Your task to perform on an android device: Add "macbook air" to the cart on bestbuy, then select checkout. Image 0: 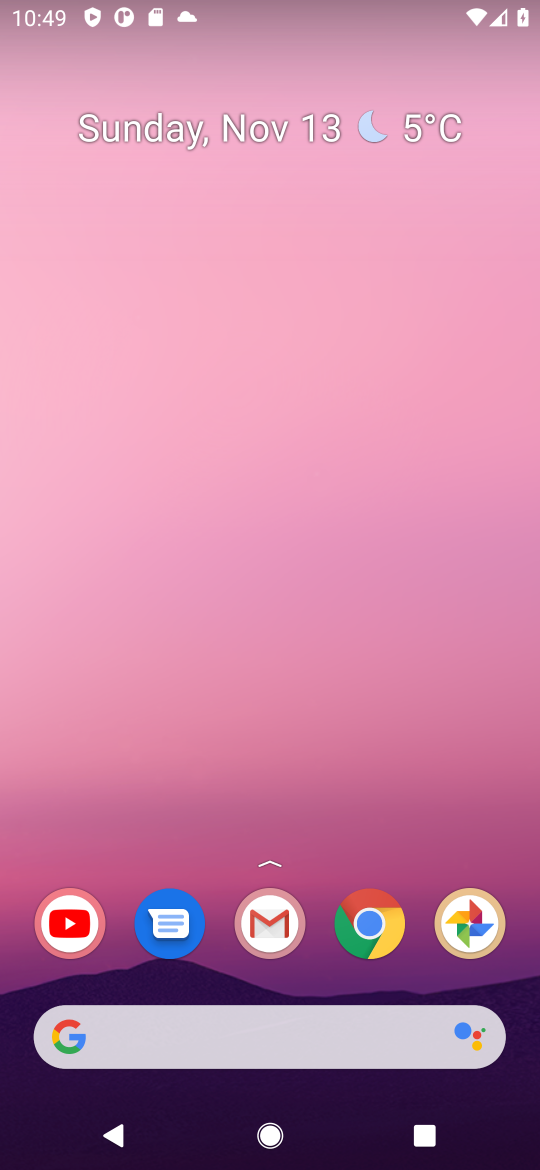
Step 0: click (377, 923)
Your task to perform on an android device: Add "macbook air" to the cart on bestbuy, then select checkout. Image 1: 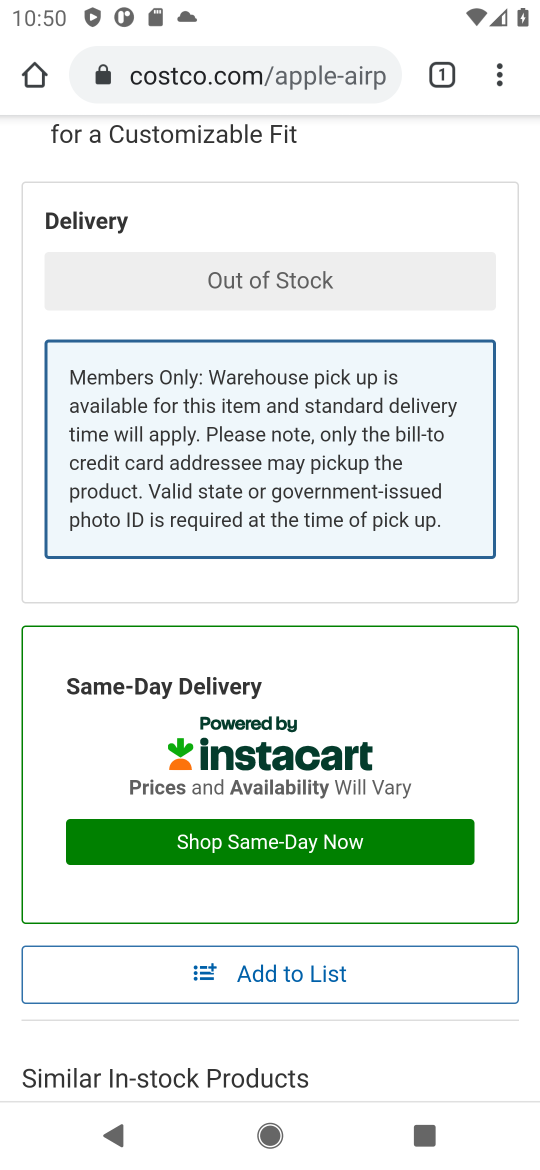
Step 1: click (255, 108)
Your task to perform on an android device: Add "macbook air" to the cart on bestbuy, then select checkout. Image 2: 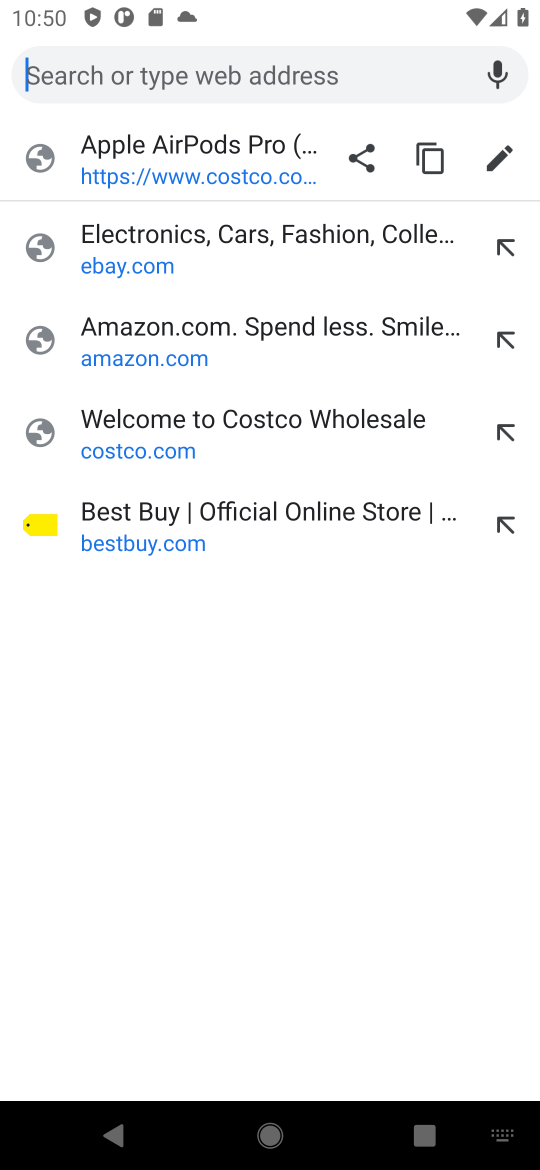
Step 2: type "bestbuy"
Your task to perform on an android device: Add "macbook air" to the cart on bestbuy, then select checkout. Image 3: 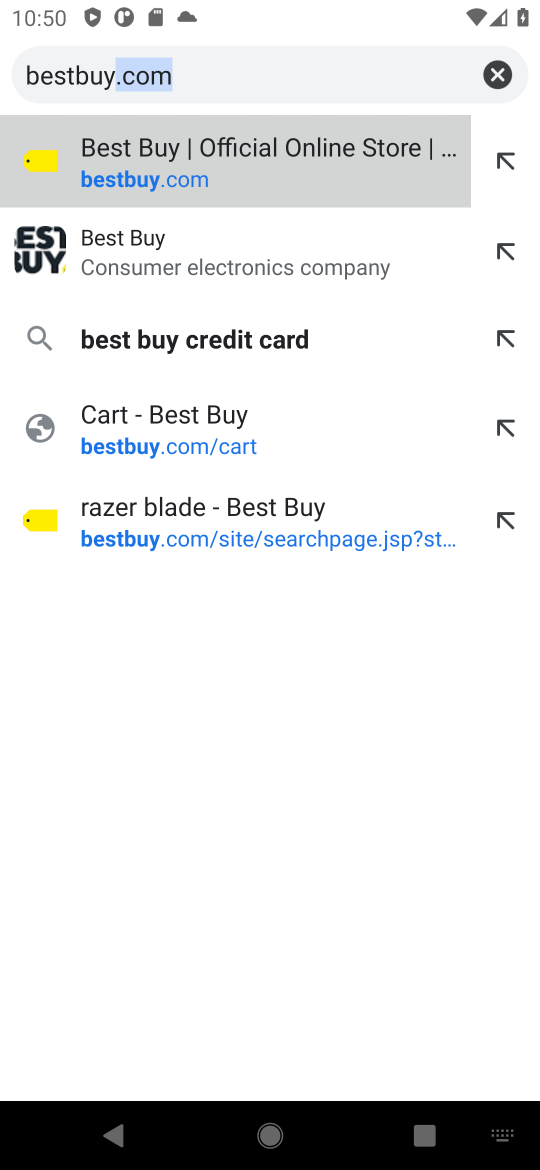
Step 3: click (234, 168)
Your task to perform on an android device: Add "macbook air" to the cart on bestbuy, then select checkout. Image 4: 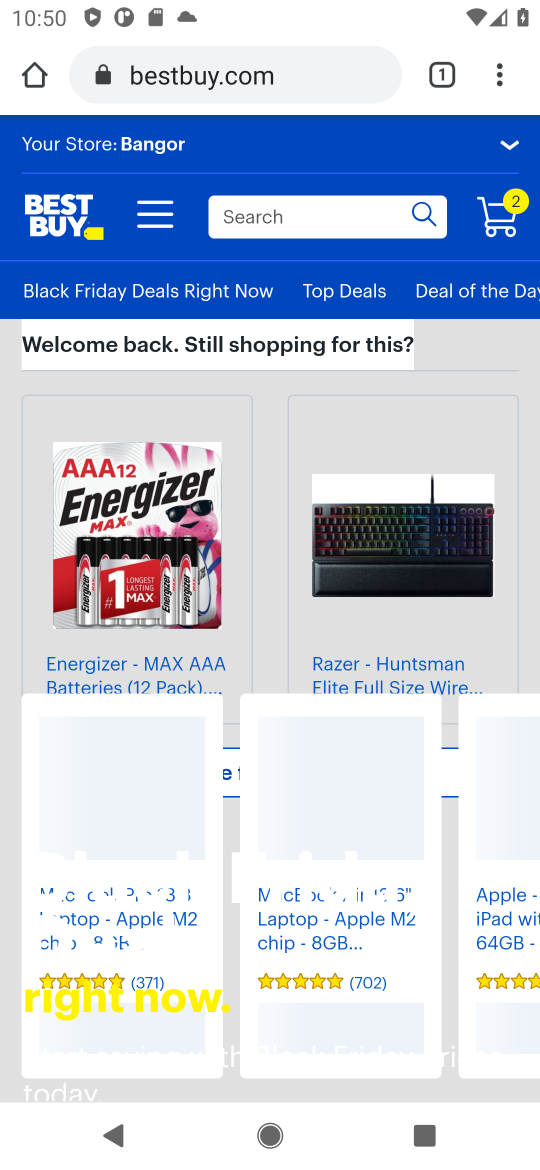
Step 4: click (283, 216)
Your task to perform on an android device: Add "macbook air" to the cart on bestbuy, then select checkout. Image 5: 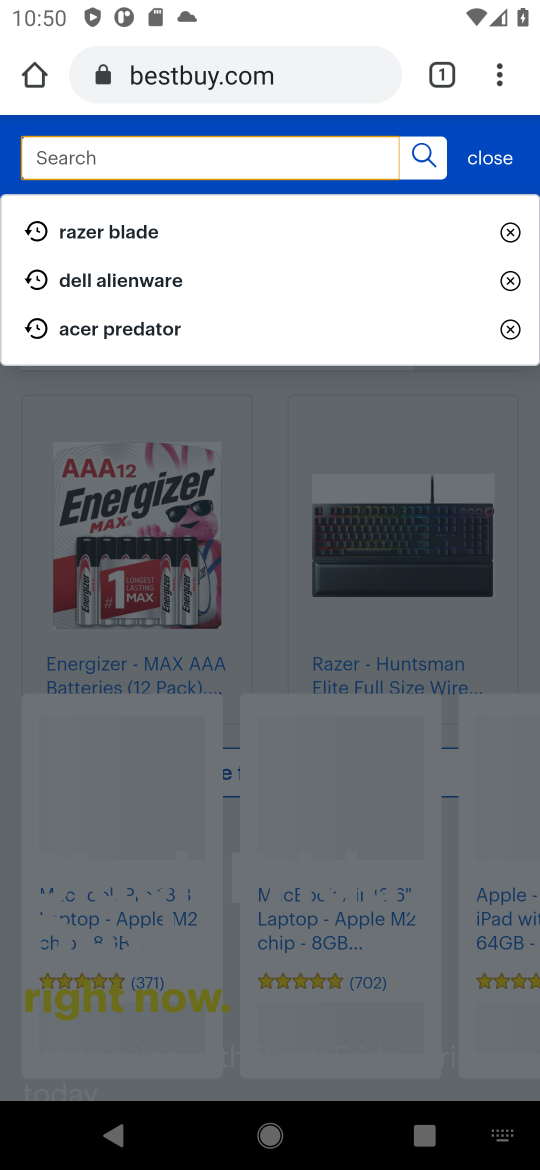
Step 5: type "macbook air"
Your task to perform on an android device: Add "macbook air" to the cart on bestbuy, then select checkout. Image 6: 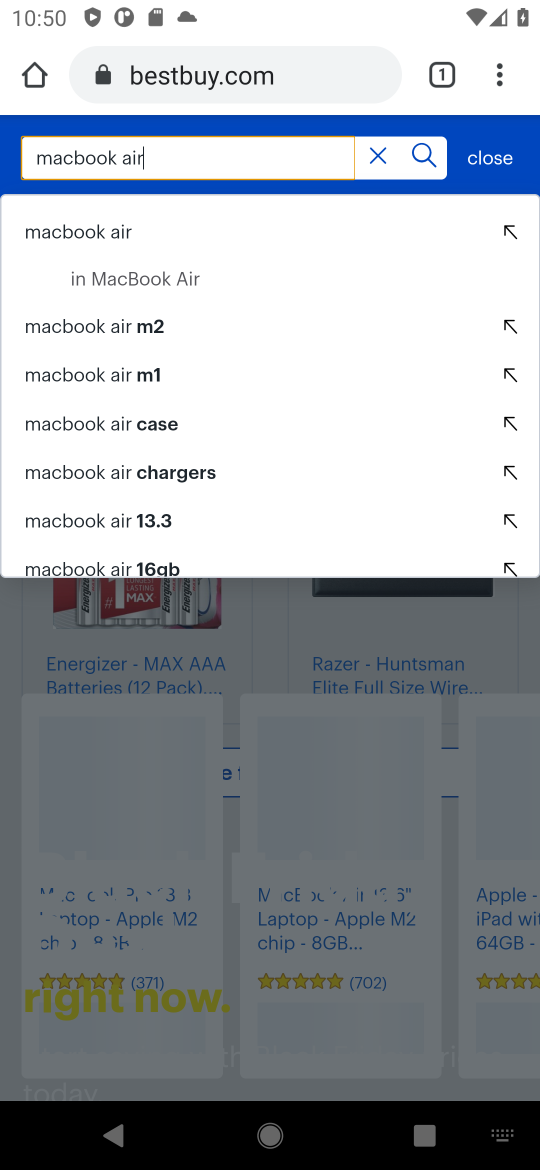
Step 6: press enter
Your task to perform on an android device: Add "macbook air" to the cart on bestbuy, then select checkout. Image 7: 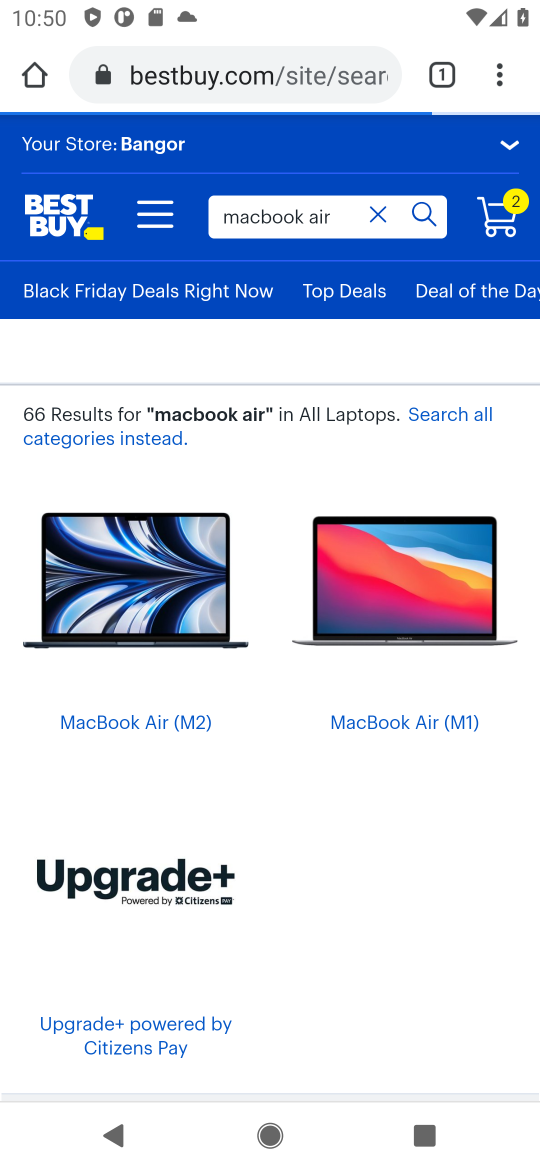
Step 7: drag from (282, 910) to (247, 314)
Your task to perform on an android device: Add "macbook air" to the cart on bestbuy, then select checkout. Image 8: 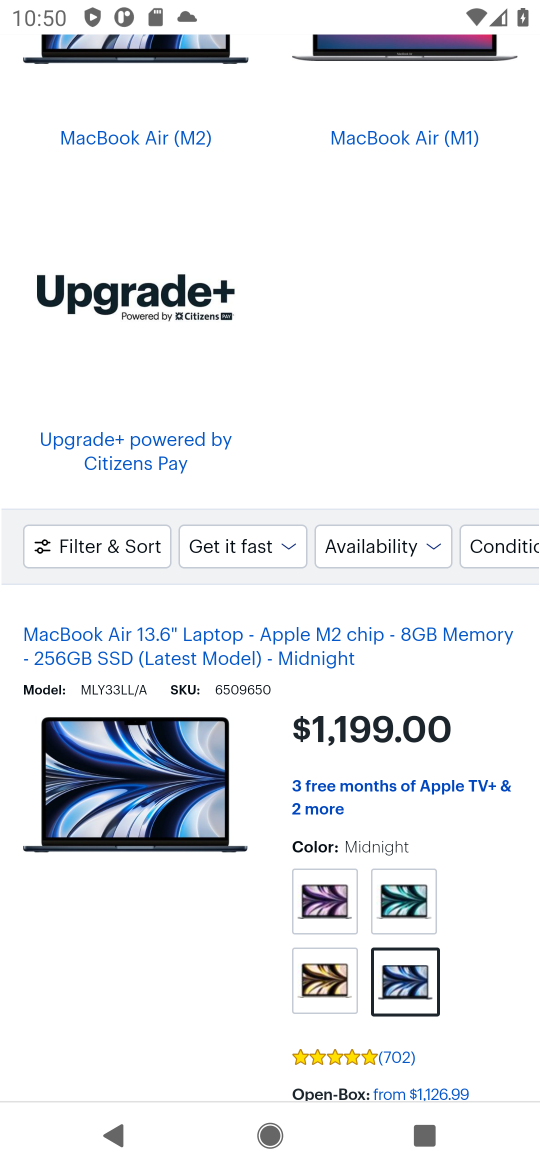
Step 8: click (171, 654)
Your task to perform on an android device: Add "macbook air" to the cart on bestbuy, then select checkout. Image 9: 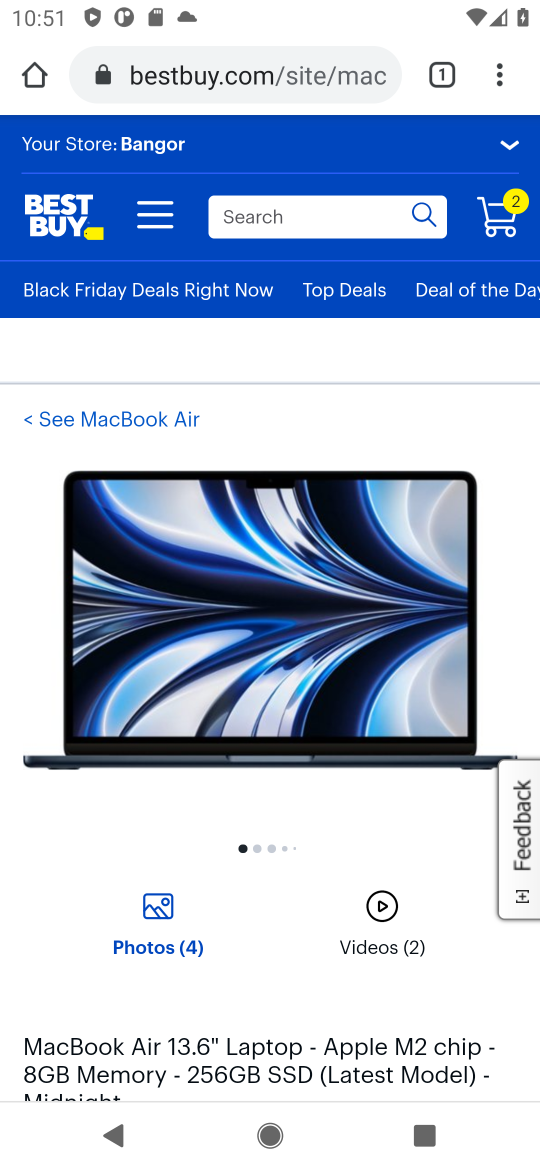
Step 9: drag from (359, 988) to (362, 576)
Your task to perform on an android device: Add "macbook air" to the cart on bestbuy, then select checkout. Image 10: 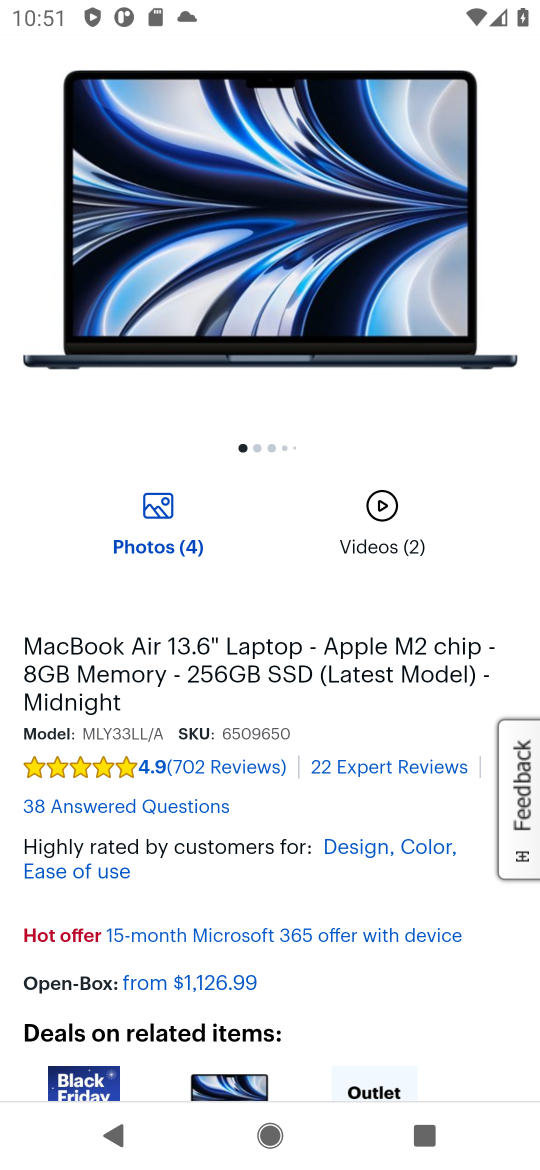
Step 10: drag from (327, 794) to (371, 522)
Your task to perform on an android device: Add "macbook air" to the cart on bestbuy, then select checkout. Image 11: 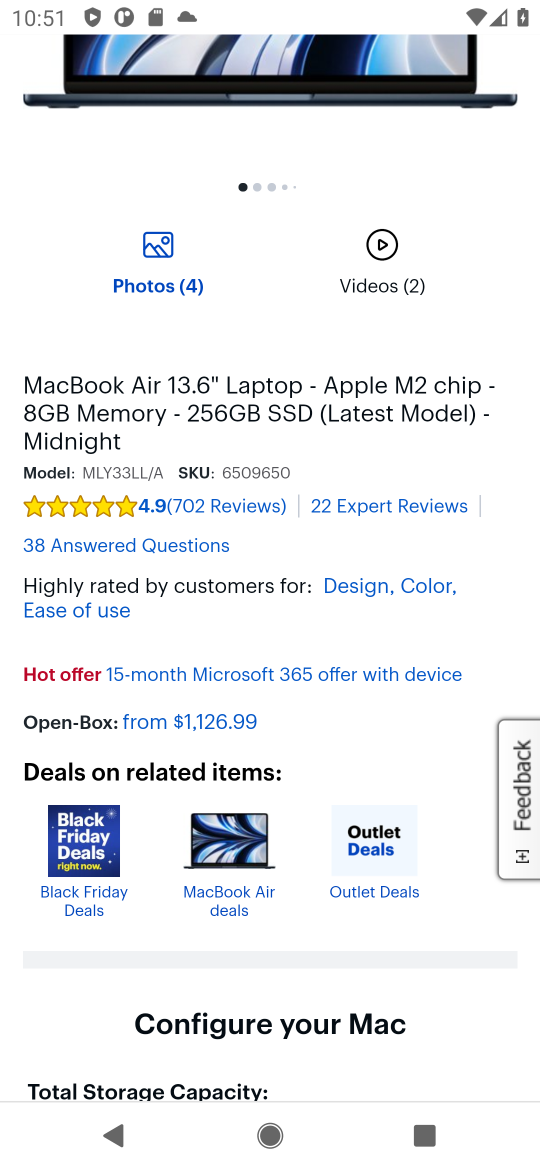
Step 11: drag from (359, 389) to (359, 297)
Your task to perform on an android device: Add "macbook air" to the cart on bestbuy, then select checkout. Image 12: 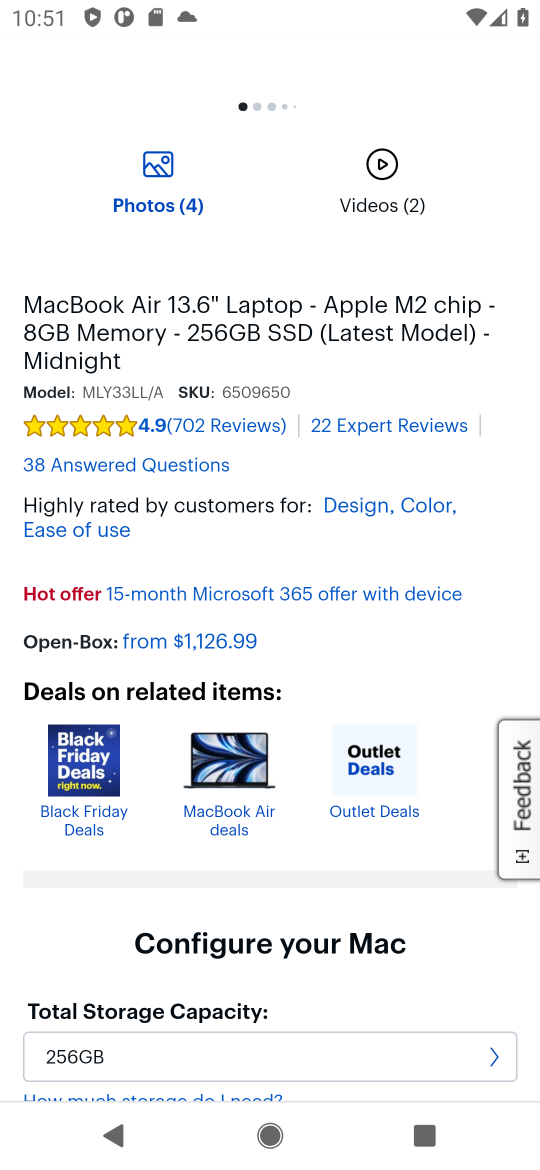
Step 12: drag from (377, 849) to (374, 316)
Your task to perform on an android device: Add "macbook air" to the cart on bestbuy, then select checkout. Image 13: 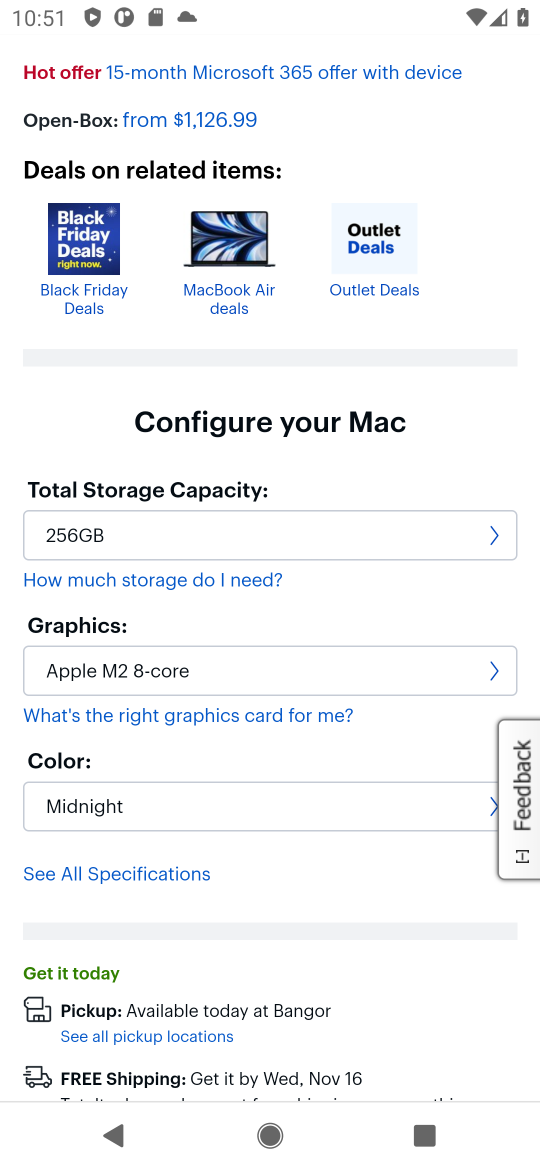
Step 13: click (432, 342)
Your task to perform on an android device: Add "macbook air" to the cart on bestbuy, then select checkout. Image 14: 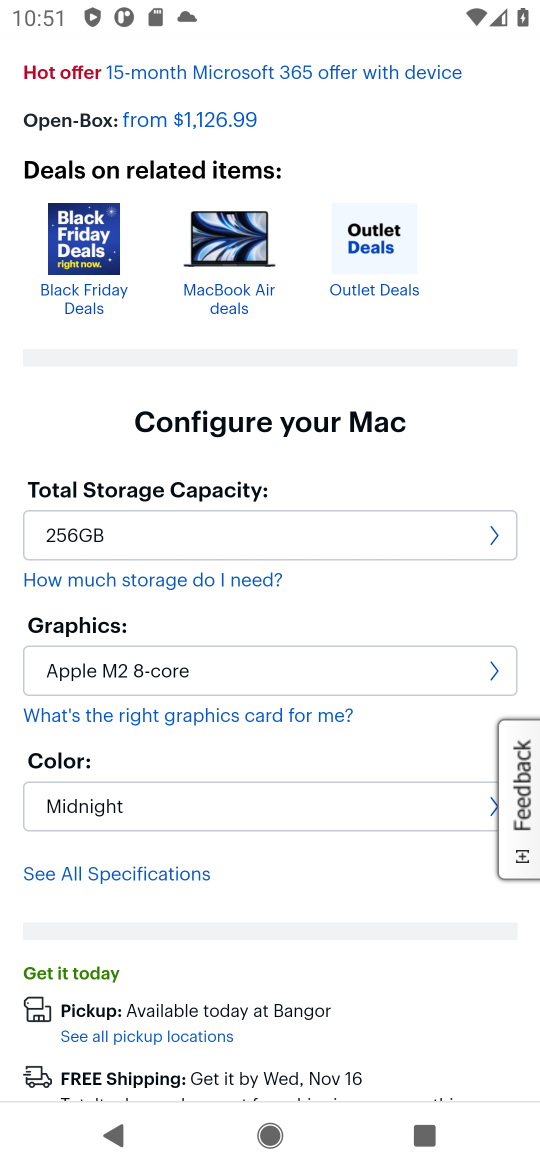
Step 14: drag from (360, 771) to (344, 302)
Your task to perform on an android device: Add "macbook air" to the cart on bestbuy, then select checkout. Image 15: 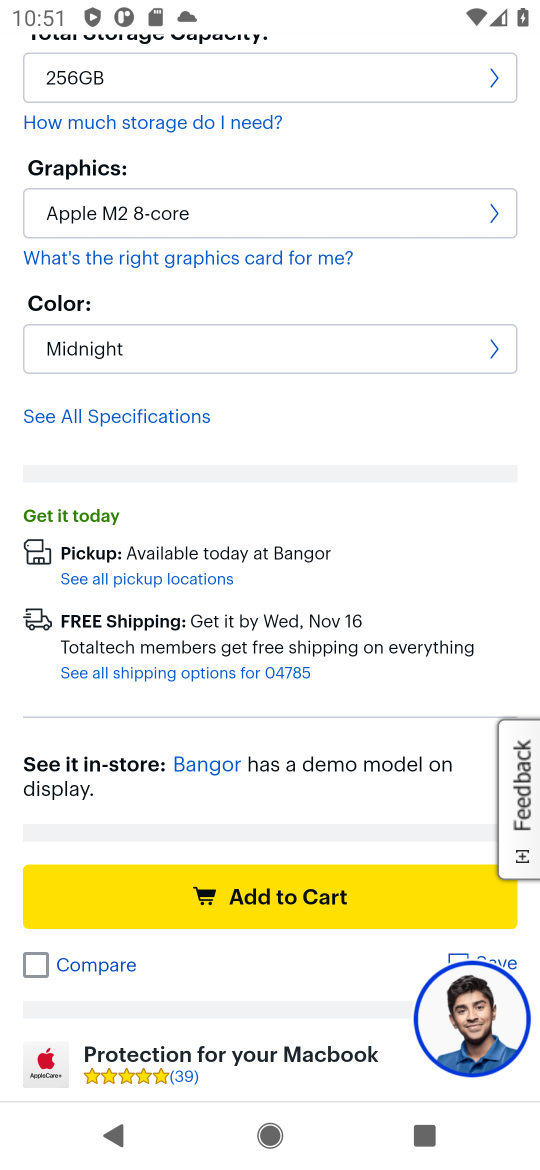
Step 15: drag from (332, 610) to (332, 458)
Your task to perform on an android device: Add "macbook air" to the cart on bestbuy, then select checkout. Image 16: 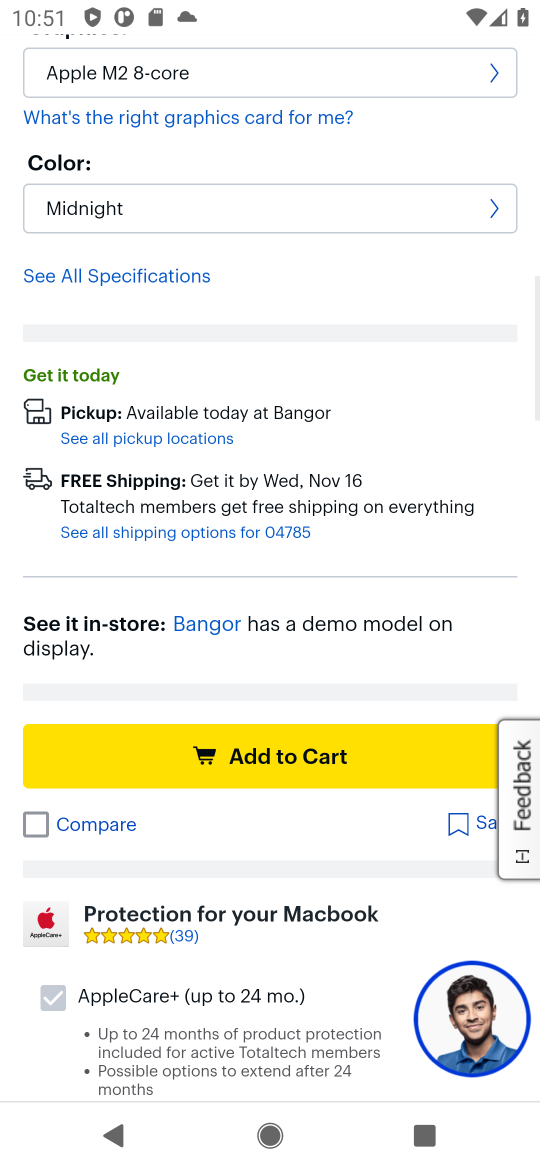
Step 16: click (297, 909)
Your task to perform on an android device: Add "macbook air" to the cart on bestbuy, then select checkout. Image 17: 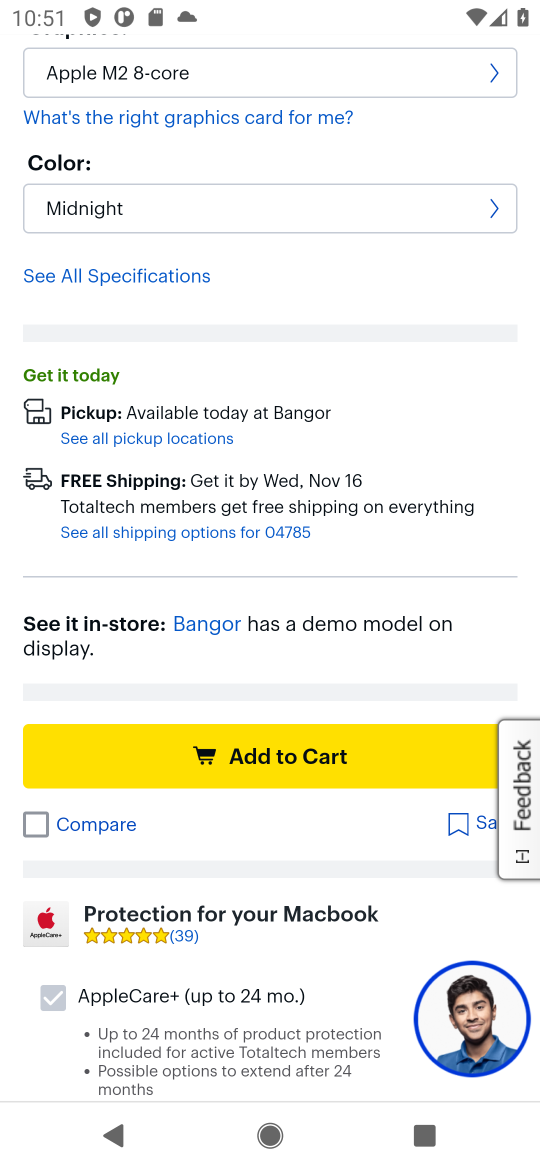
Step 17: click (257, 759)
Your task to perform on an android device: Add "macbook air" to the cart on bestbuy, then select checkout. Image 18: 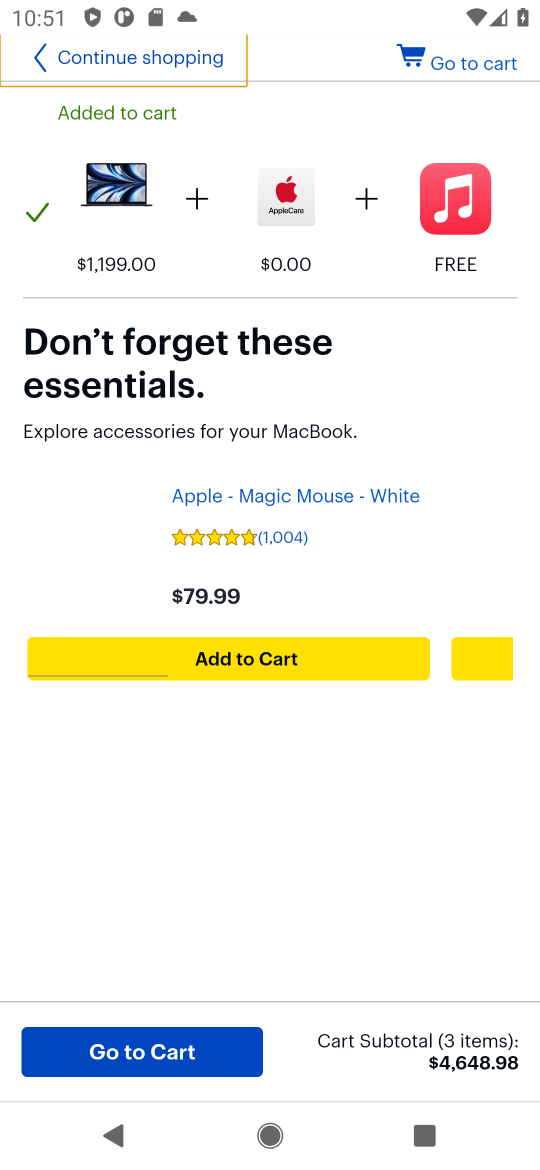
Step 18: click (146, 1076)
Your task to perform on an android device: Add "macbook air" to the cart on bestbuy, then select checkout. Image 19: 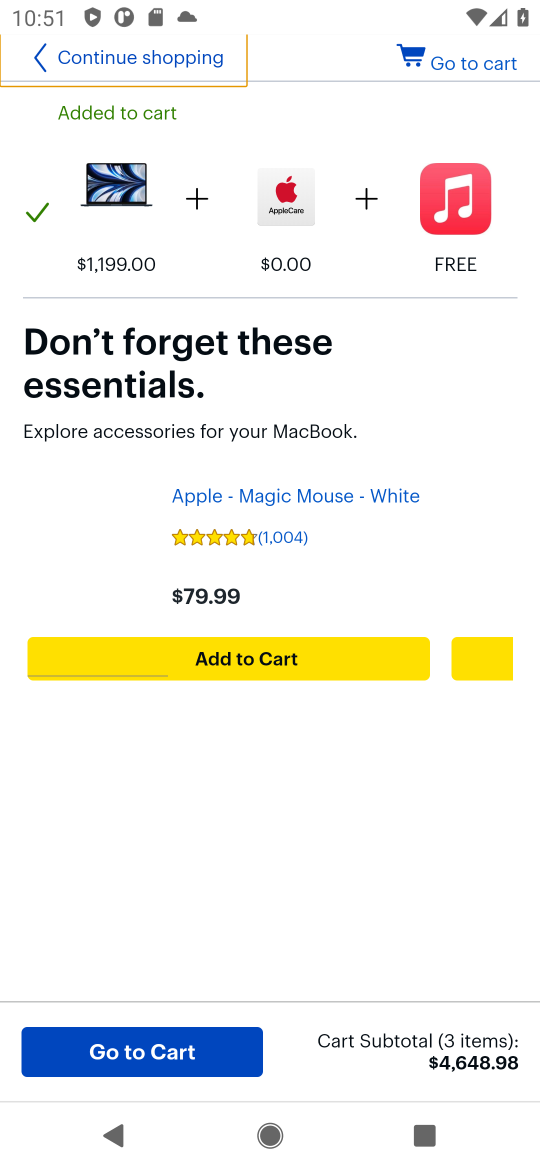
Step 19: click (146, 1059)
Your task to perform on an android device: Add "macbook air" to the cart on bestbuy, then select checkout. Image 20: 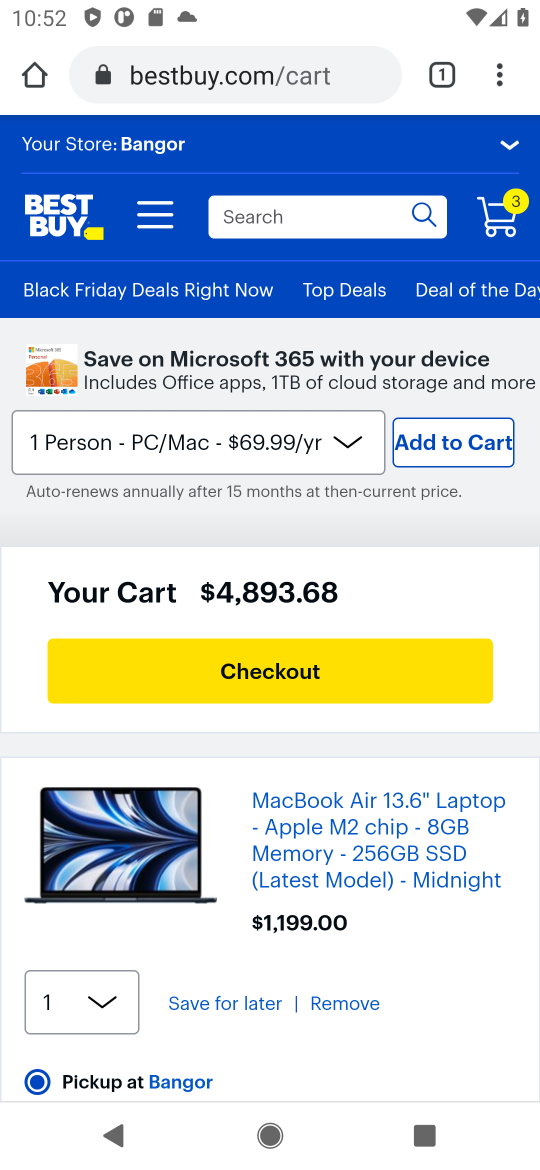
Step 20: click (286, 675)
Your task to perform on an android device: Add "macbook air" to the cart on bestbuy, then select checkout. Image 21: 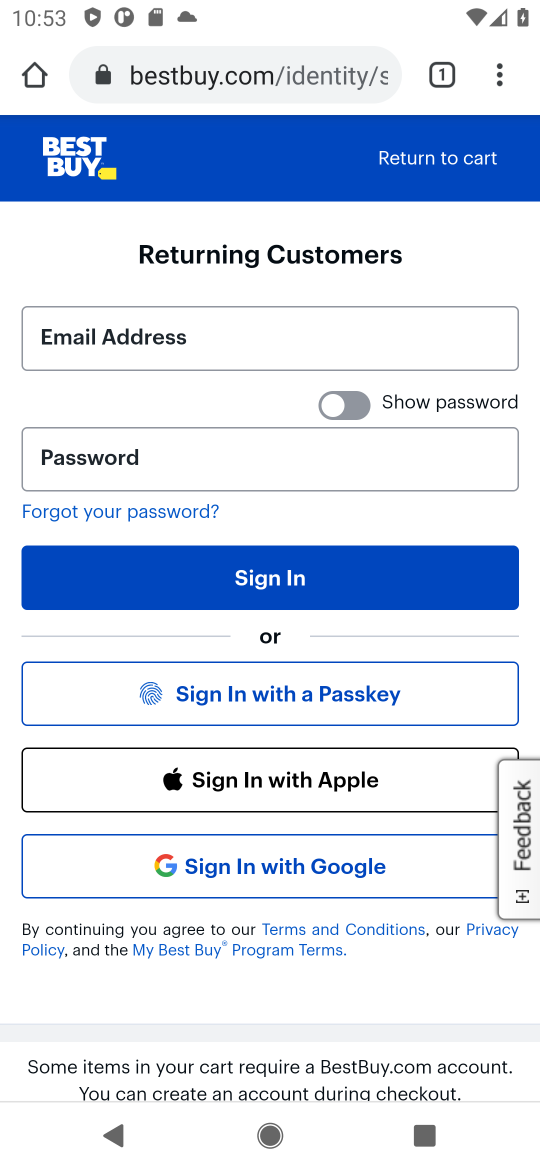
Step 21: task complete